Your task to perform on an android device: Find coffee shops on Maps Image 0: 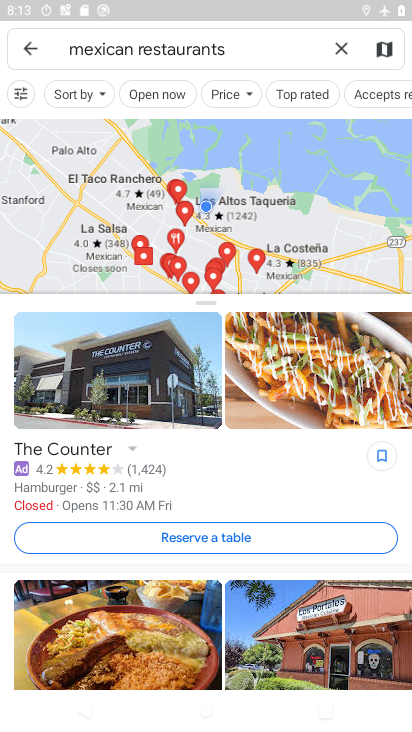
Step 0: click (244, 46)
Your task to perform on an android device: Find coffee shops on Maps Image 1: 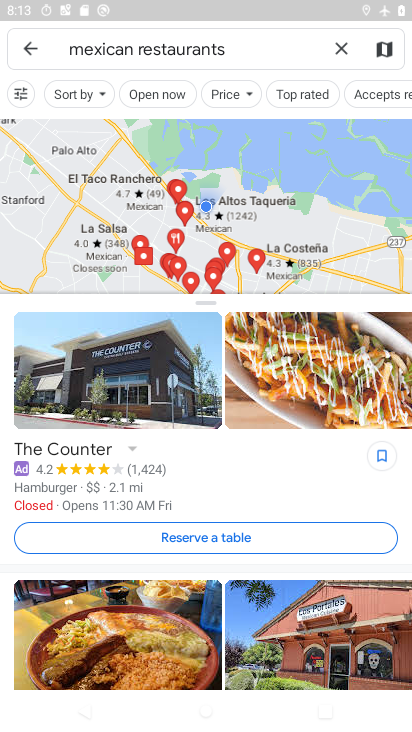
Step 1: click (333, 44)
Your task to perform on an android device: Find coffee shops on Maps Image 2: 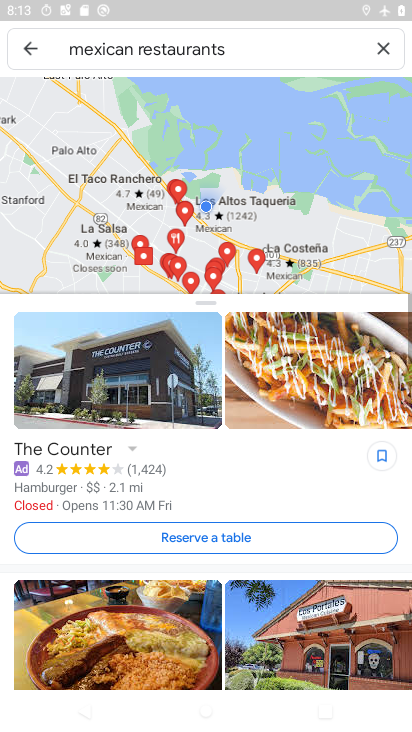
Step 2: click (331, 46)
Your task to perform on an android device: Find coffee shops on Maps Image 3: 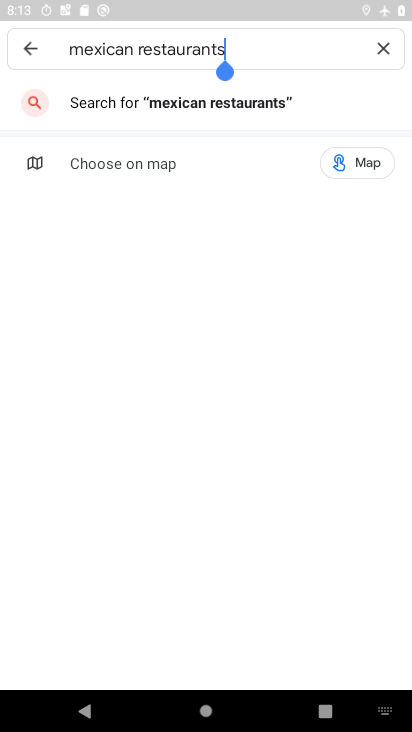
Step 3: click (383, 50)
Your task to perform on an android device: Find coffee shops on Maps Image 4: 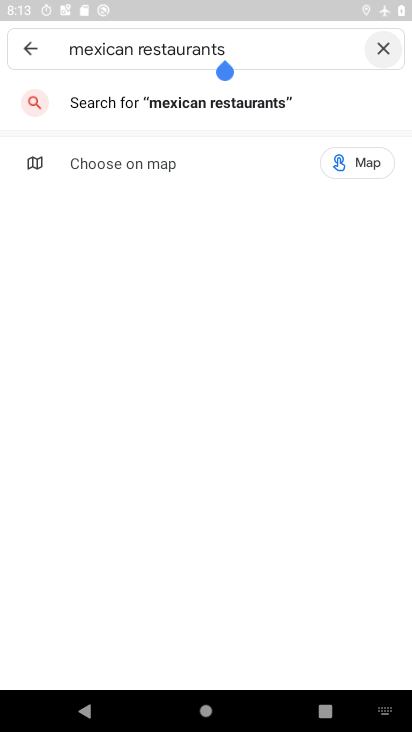
Step 4: click (385, 48)
Your task to perform on an android device: Find coffee shops on Maps Image 5: 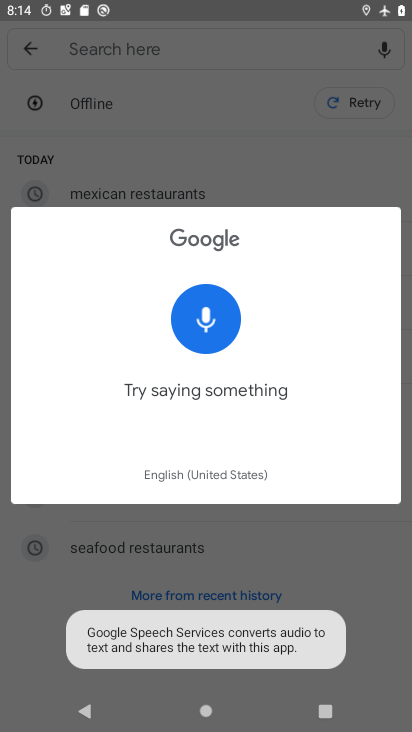
Step 5: click (209, 133)
Your task to perform on an android device: Find coffee shops on Maps Image 6: 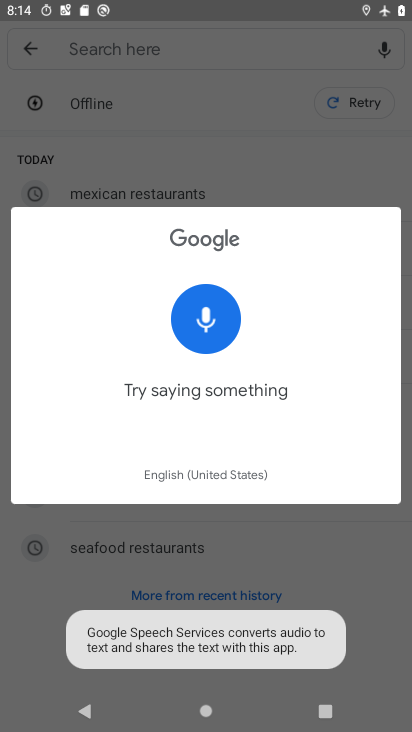
Step 6: click (209, 134)
Your task to perform on an android device: Find coffee shops on Maps Image 7: 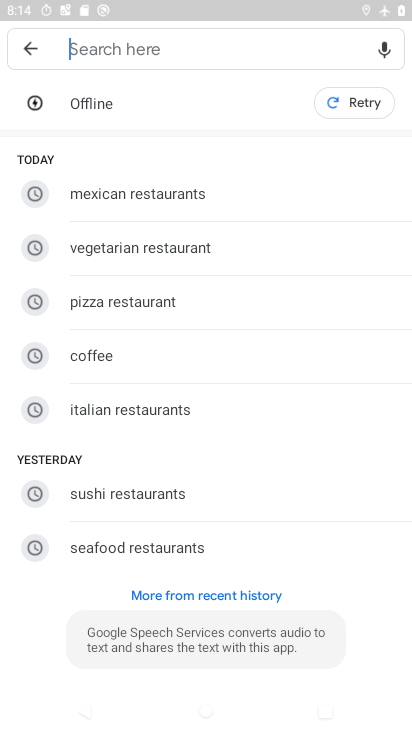
Step 7: click (111, 357)
Your task to perform on an android device: Find coffee shops on Maps Image 8: 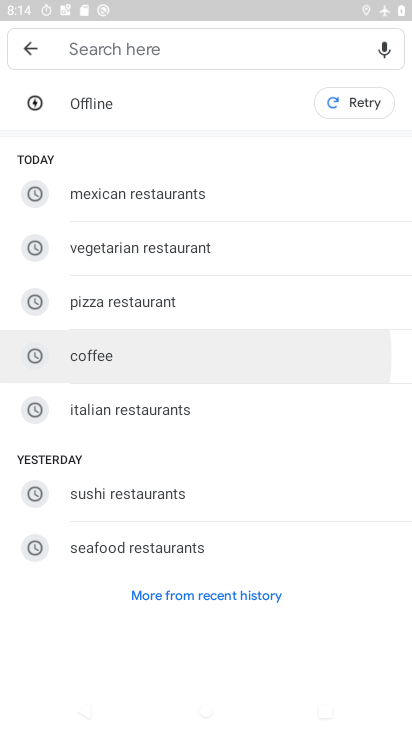
Step 8: click (105, 360)
Your task to perform on an android device: Find coffee shops on Maps Image 9: 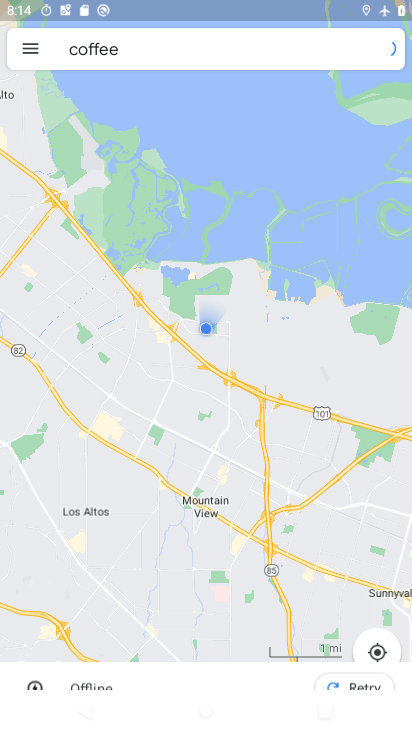
Step 9: click (102, 366)
Your task to perform on an android device: Find coffee shops on Maps Image 10: 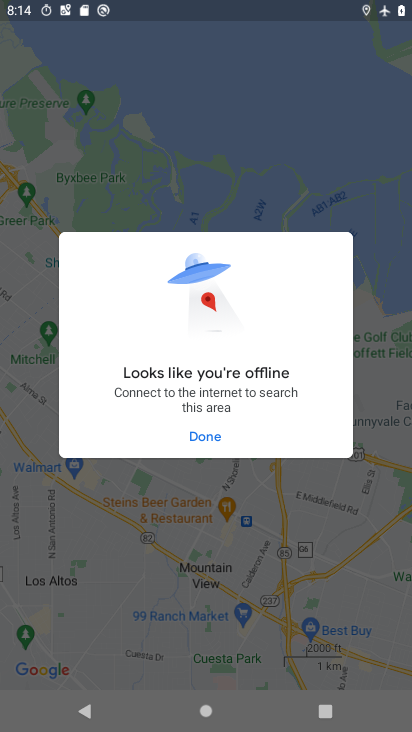
Step 10: task complete